Your task to perform on an android device: Open calendar and show me the first week of next month Image 0: 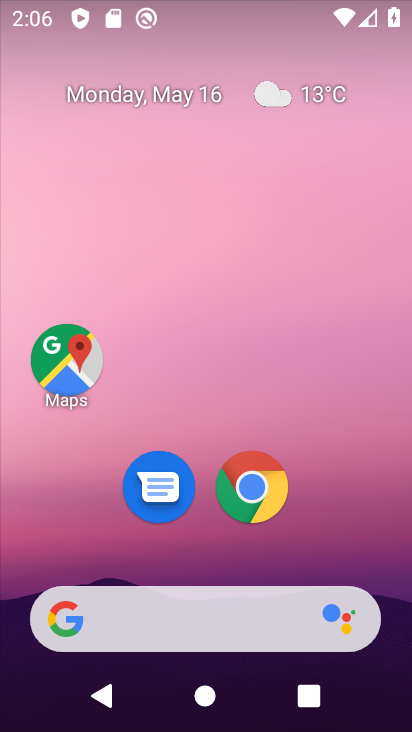
Step 0: drag from (327, 451) to (113, 88)
Your task to perform on an android device: Open calendar and show me the first week of next month Image 1: 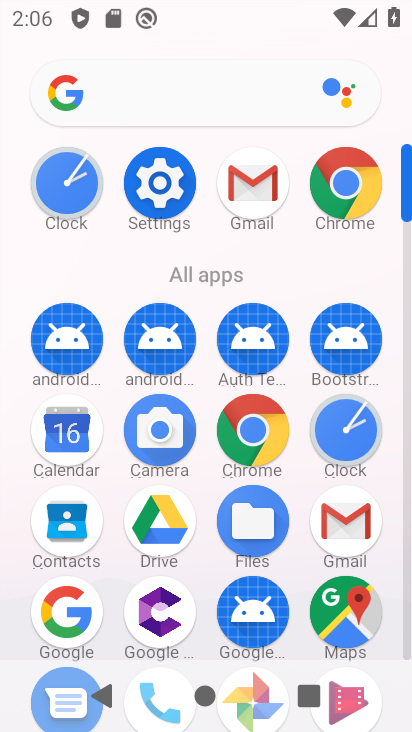
Step 1: click (58, 439)
Your task to perform on an android device: Open calendar and show me the first week of next month Image 2: 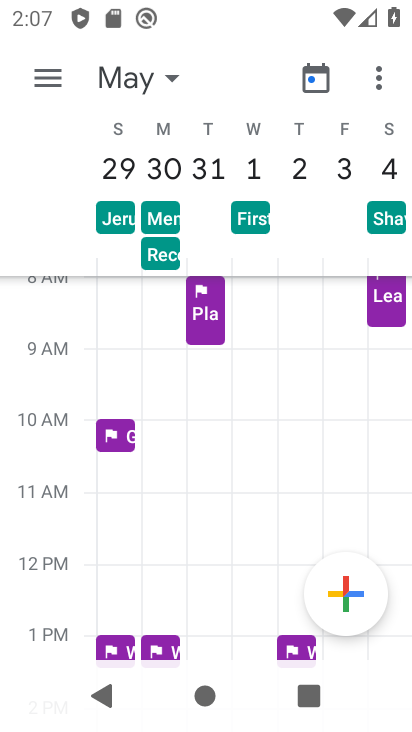
Step 2: task complete